Your task to perform on an android device: check data usage Image 0: 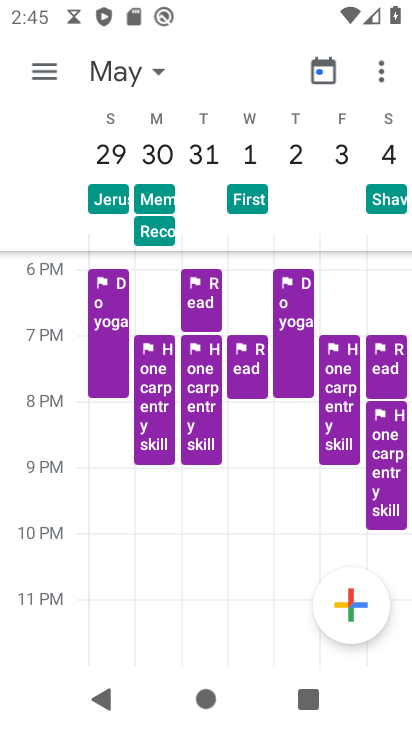
Step 0: press home button
Your task to perform on an android device: check data usage Image 1: 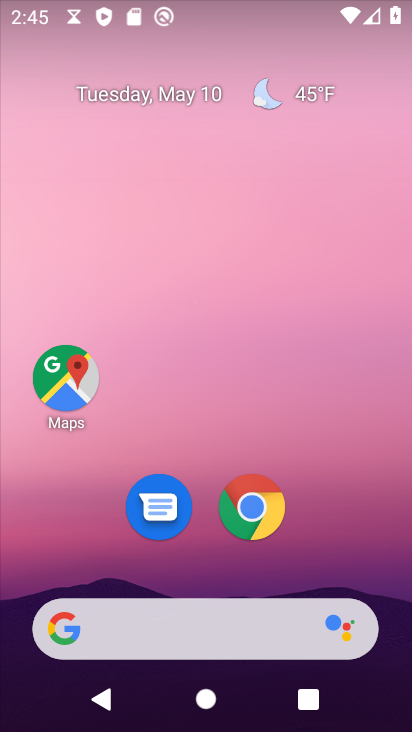
Step 1: drag from (322, 559) to (110, 93)
Your task to perform on an android device: check data usage Image 2: 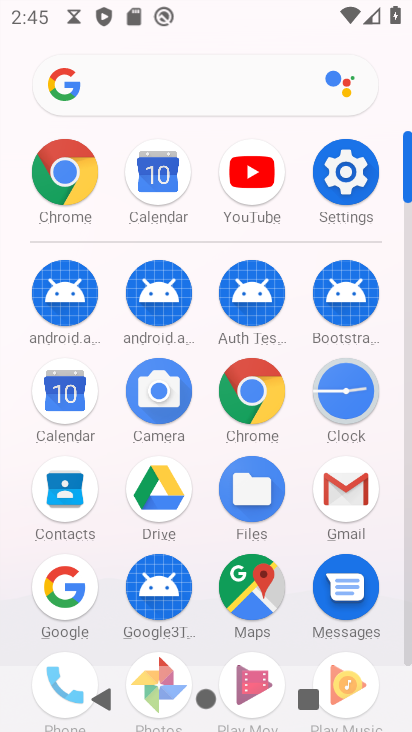
Step 2: click (355, 164)
Your task to perform on an android device: check data usage Image 3: 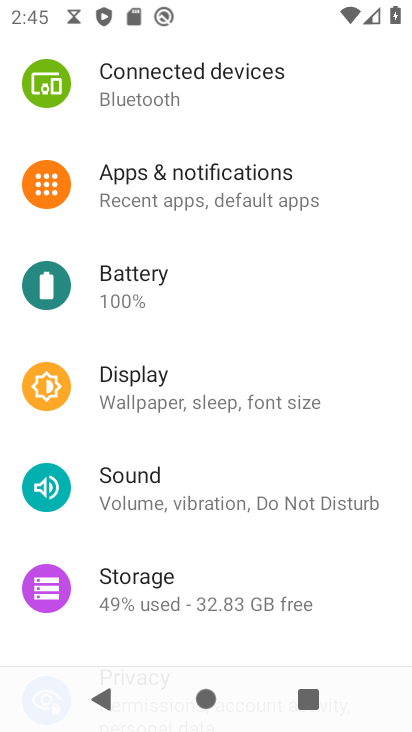
Step 3: drag from (227, 183) to (225, 476)
Your task to perform on an android device: check data usage Image 4: 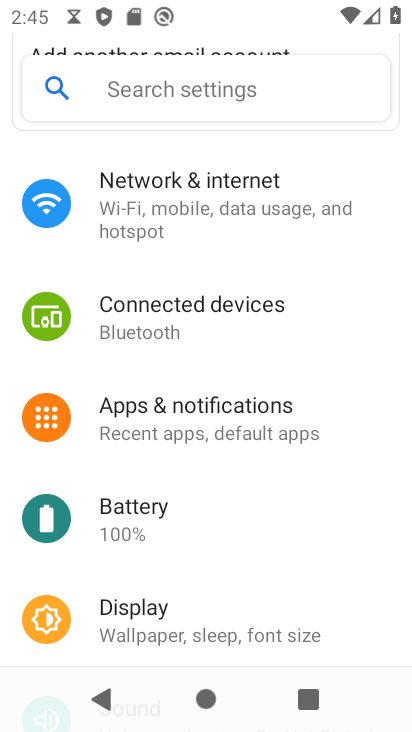
Step 4: click (185, 204)
Your task to perform on an android device: check data usage Image 5: 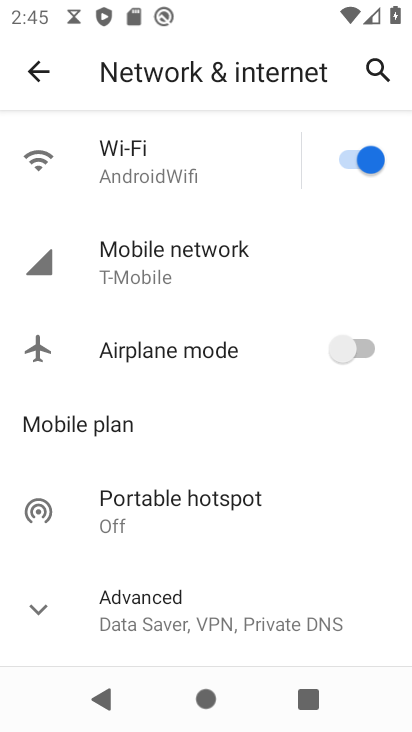
Step 5: click (183, 260)
Your task to perform on an android device: check data usage Image 6: 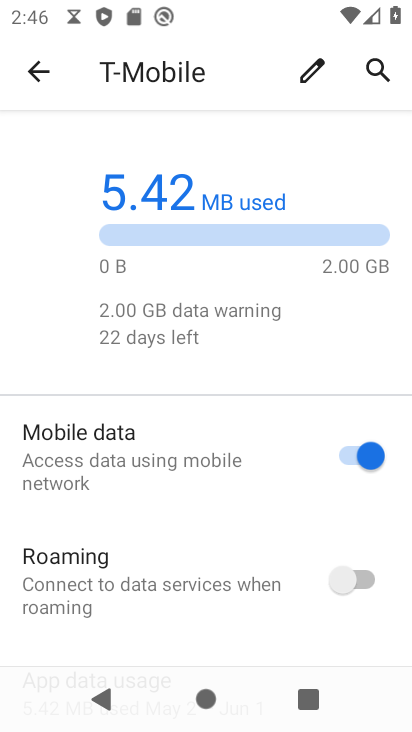
Step 6: task complete